Your task to perform on an android device: Go to eBay Image 0: 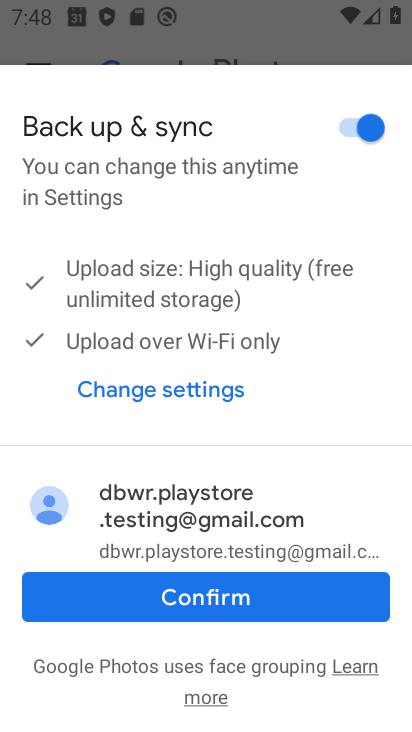
Step 0: press home button
Your task to perform on an android device: Go to eBay Image 1: 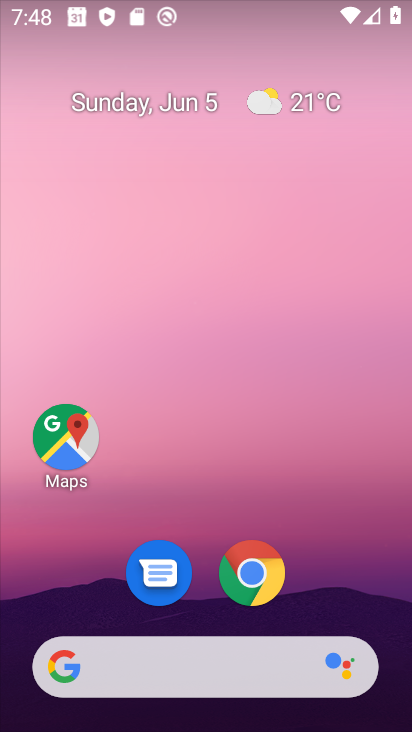
Step 1: click (257, 559)
Your task to perform on an android device: Go to eBay Image 2: 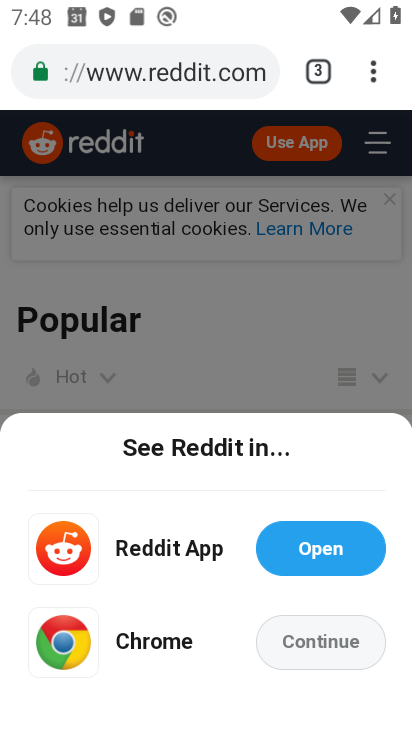
Step 2: click (366, 71)
Your task to perform on an android device: Go to eBay Image 3: 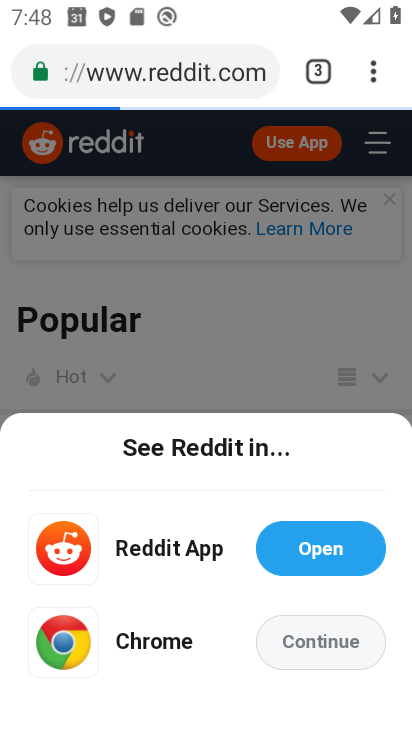
Step 3: click (371, 68)
Your task to perform on an android device: Go to eBay Image 4: 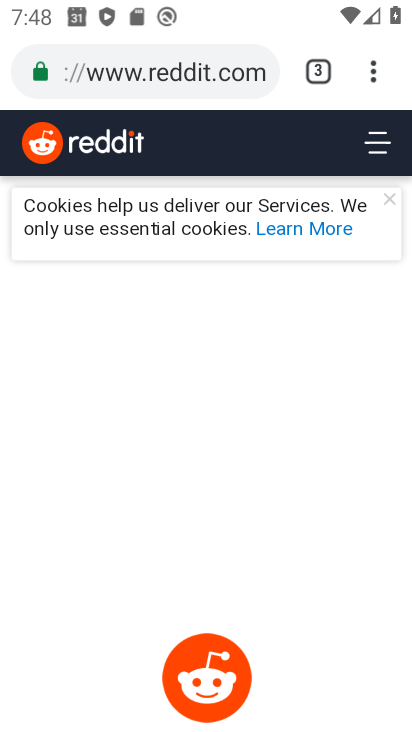
Step 4: click (371, 68)
Your task to perform on an android device: Go to eBay Image 5: 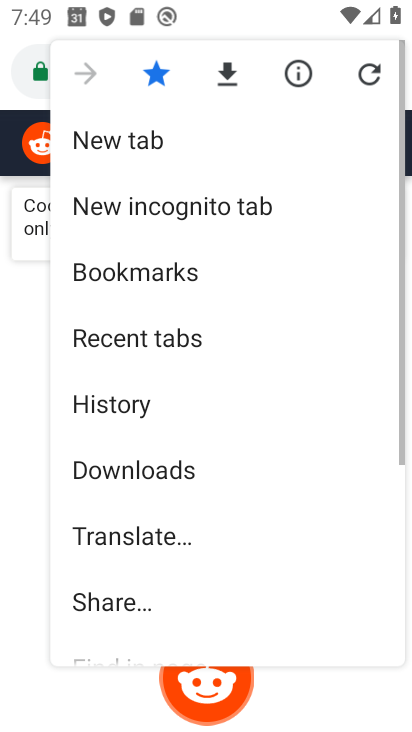
Step 5: click (158, 130)
Your task to perform on an android device: Go to eBay Image 6: 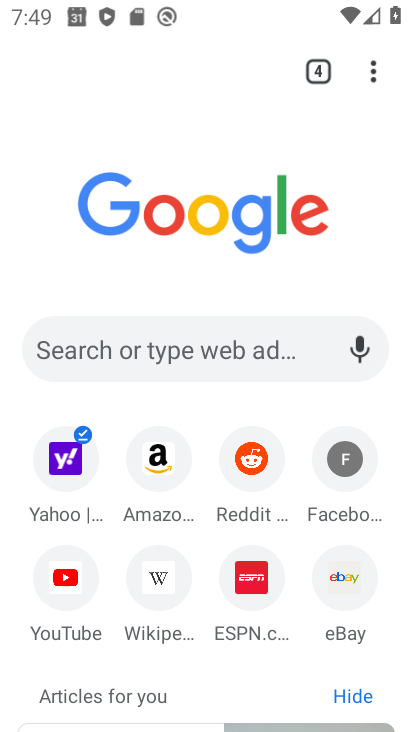
Step 6: click (334, 570)
Your task to perform on an android device: Go to eBay Image 7: 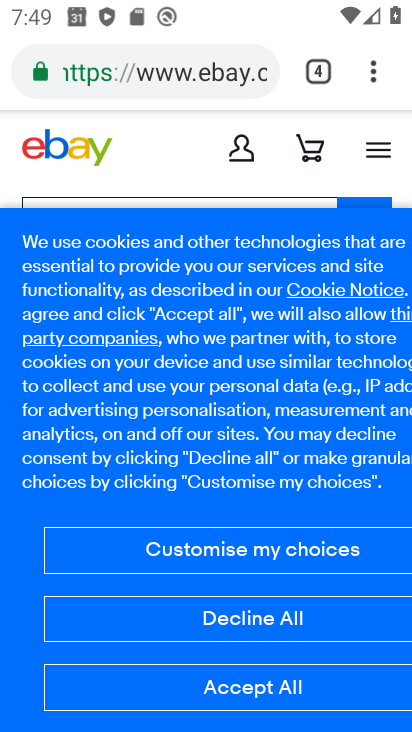
Step 7: task complete